Your task to perform on an android device: Is it going to rain today? Image 0: 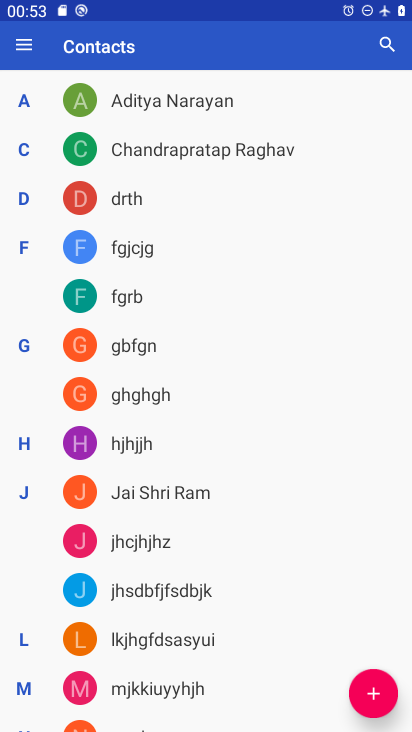
Step 0: press home button
Your task to perform on an android device: Is it going to rain today? Image 1: 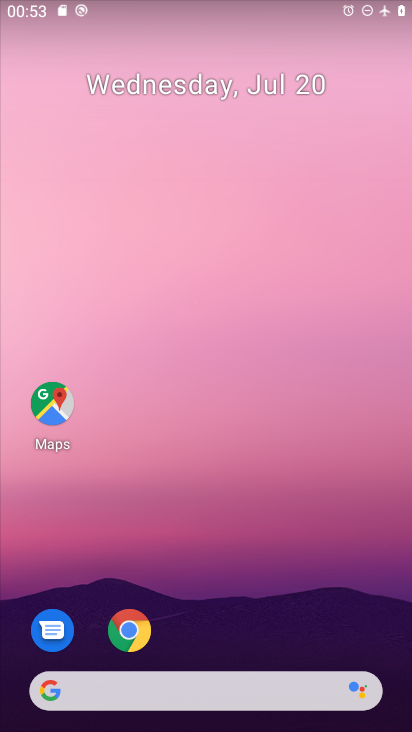
Step 1: drag from (193, 632) to (194, 234)
Your task to perform on an android device: Is it going to rain today? Image 2: 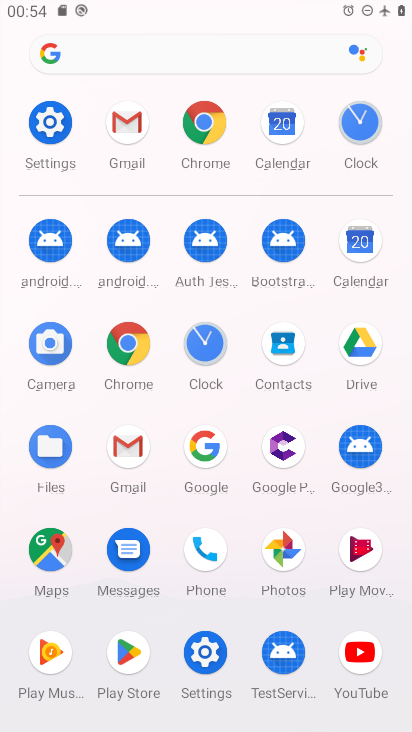
Step 2: click (216, 437)
Your task to perform on an android device: Is it going to rain today? Image 3: 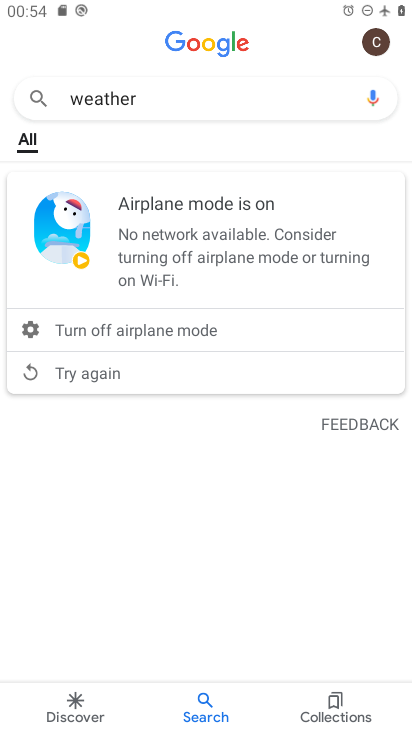
Step 3: task complete